Your task to perform on an android device: What's the weather going to be tomorrow? Image 0: 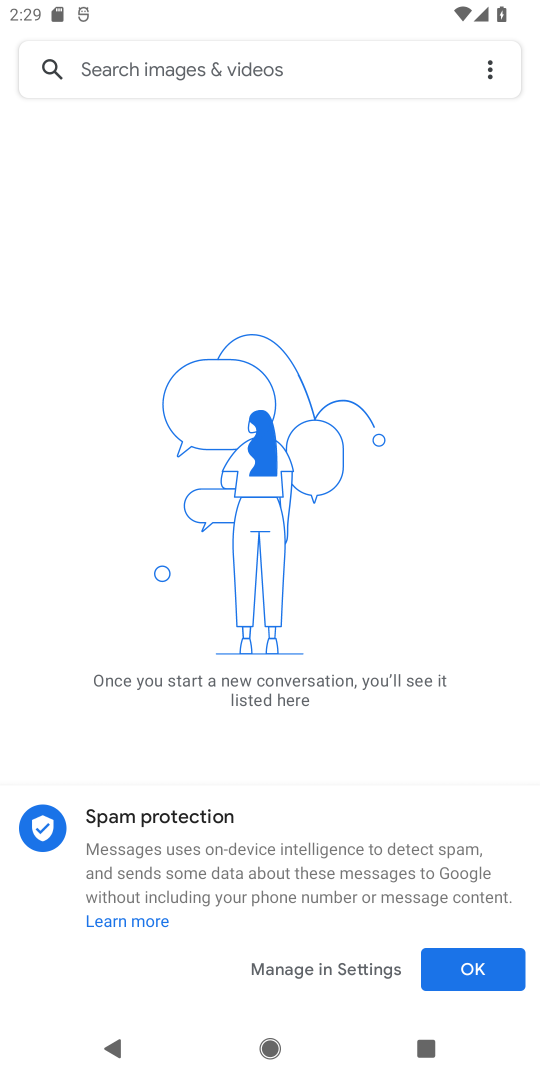
Step 0: press home button
Your task to perform on an android device: What's the weather going to be tomorrow? Image 1: 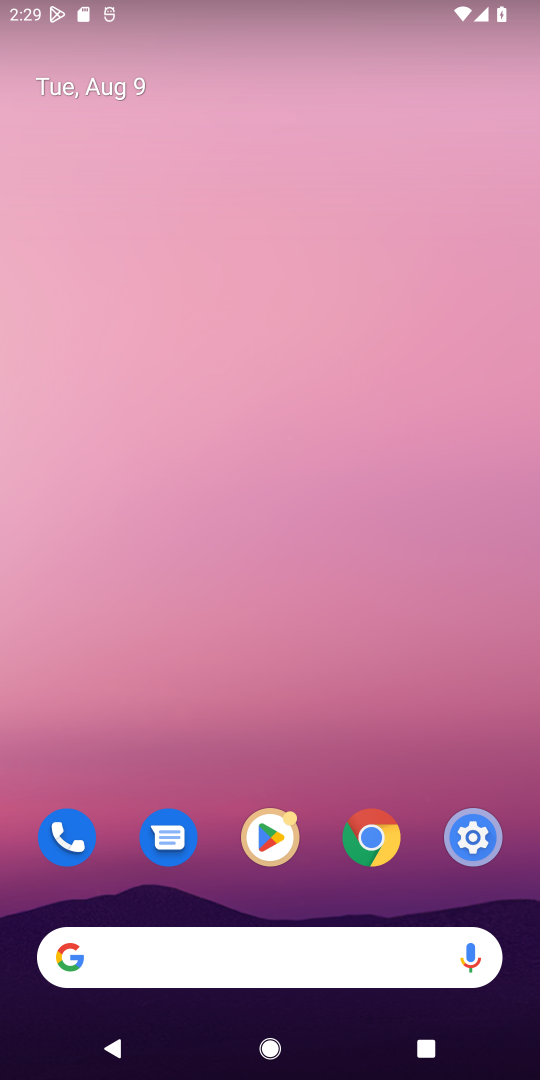
Step 1: drag from (255, 852) to (450, 7)
Your task to perform on an android device: What's the weather going to be tomorrow? Image 2: 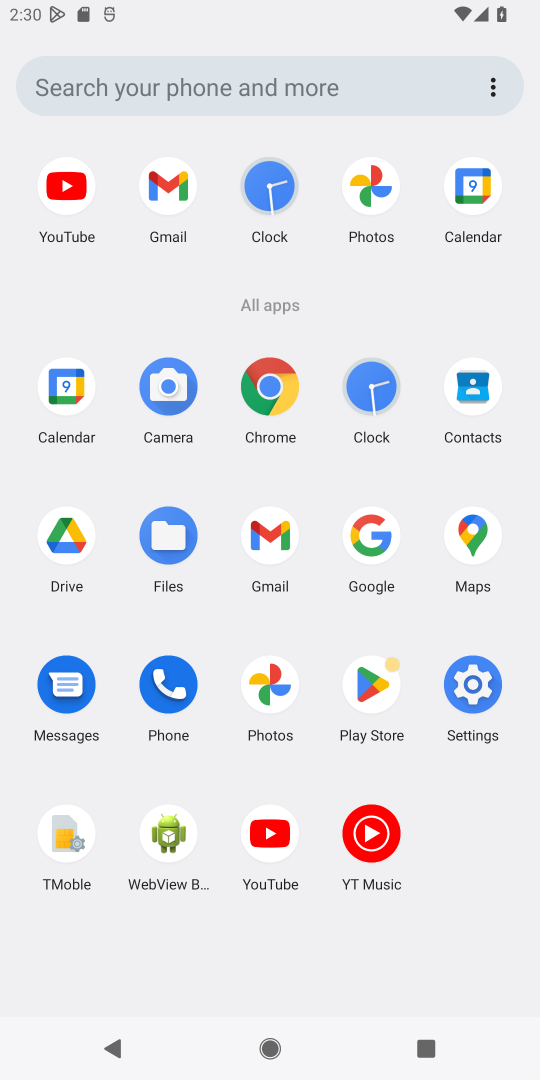
Step 2: click (260, 403)
Your task to perform on an android device: What's the weather going to be tomorrow? Image 3: 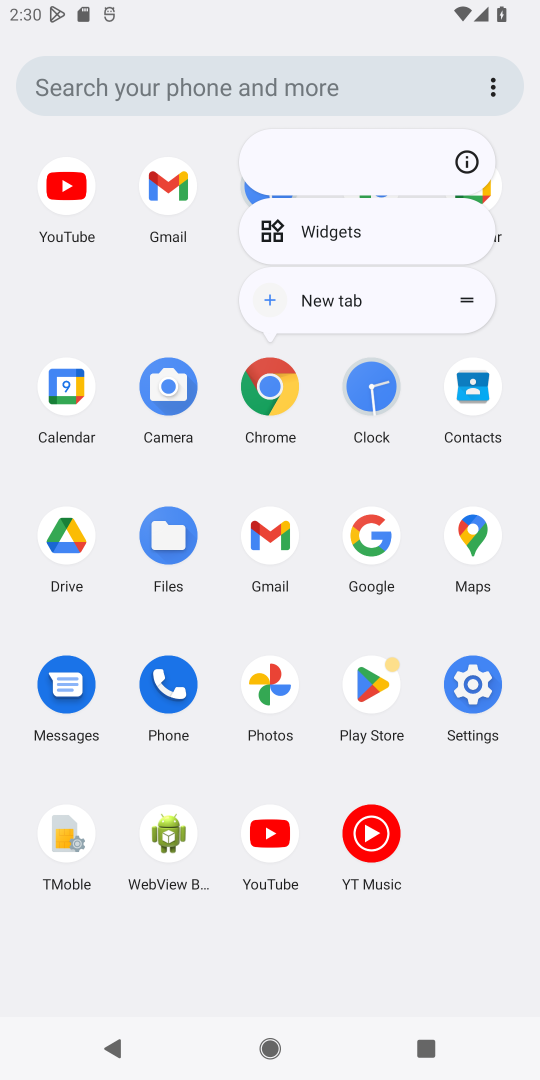
Step 3: click (264, 394)
Your task to perform on an android device: What's the weather going to be tomorrow? Image 4: 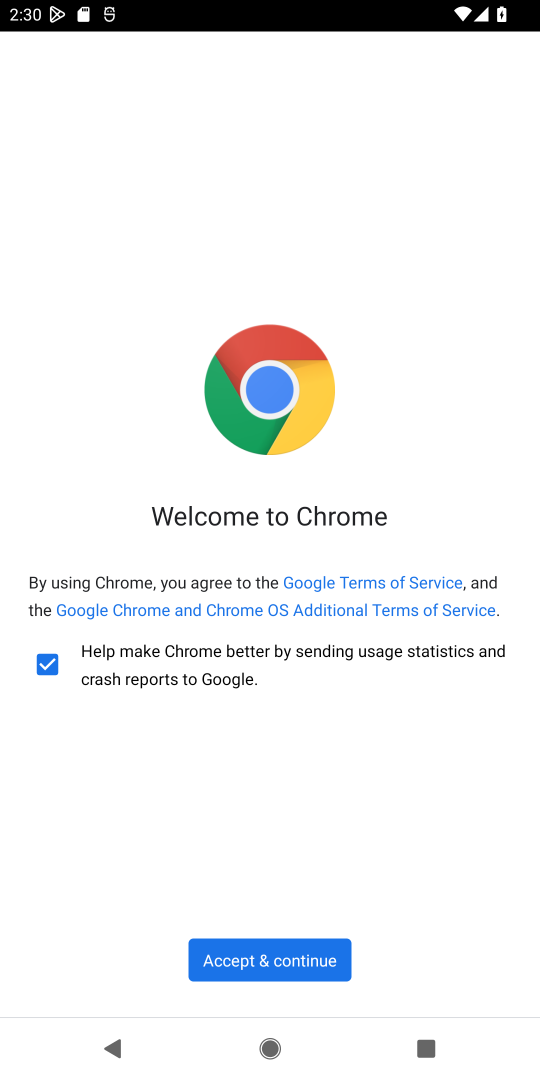
Step 4: click (242, 955)
Your task to perform on an android device: What's the weather going to be tomorrow? Image 5: 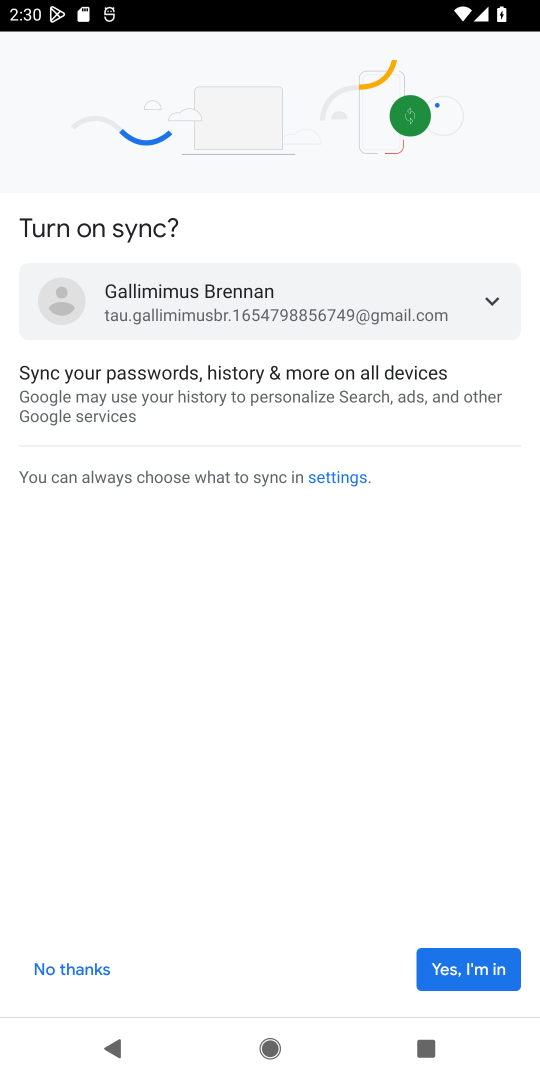
Step 5: click (504, 969)
Your task to perform on an android device: What's the weather going to be tomorrow? Image 6: 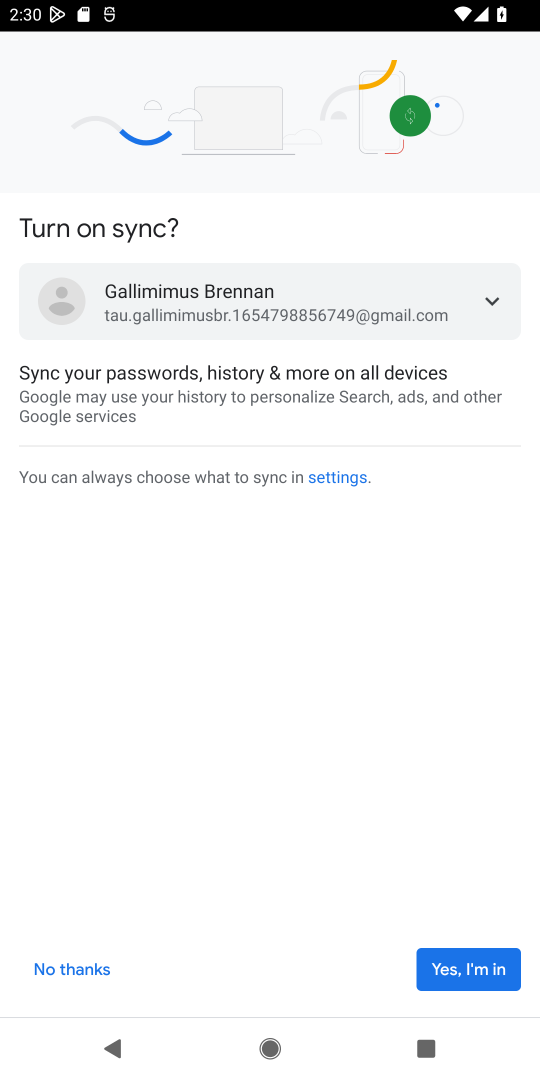
Step 6: click (488, 966)
Your task to perform on an android device: What's the weather going to be tomorrow? Image 7: 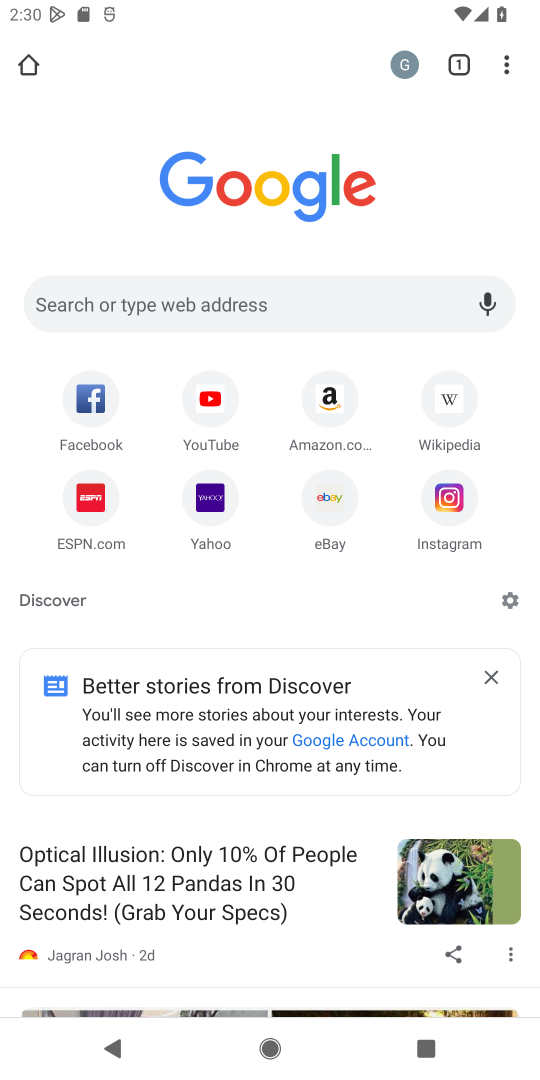
Step 7: click (233, 287)
Your task to perform on an android device: What's the weather going to be tomorrow? Image 8: 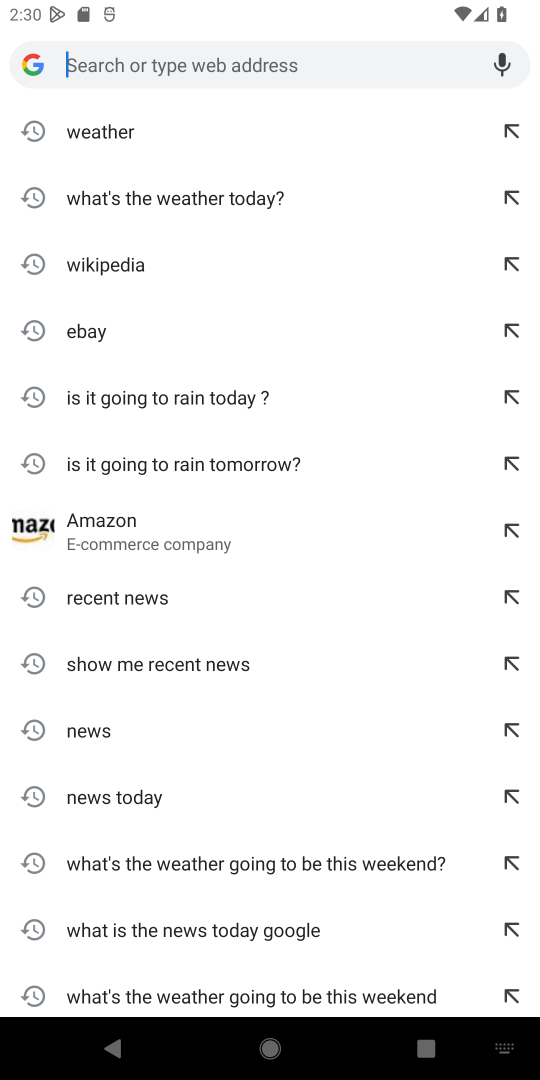
Step 8: type "What's the weather going to be tomorrow? "
Your task to perform on an android device: What's the weather going to be tomorrow? Image 9: 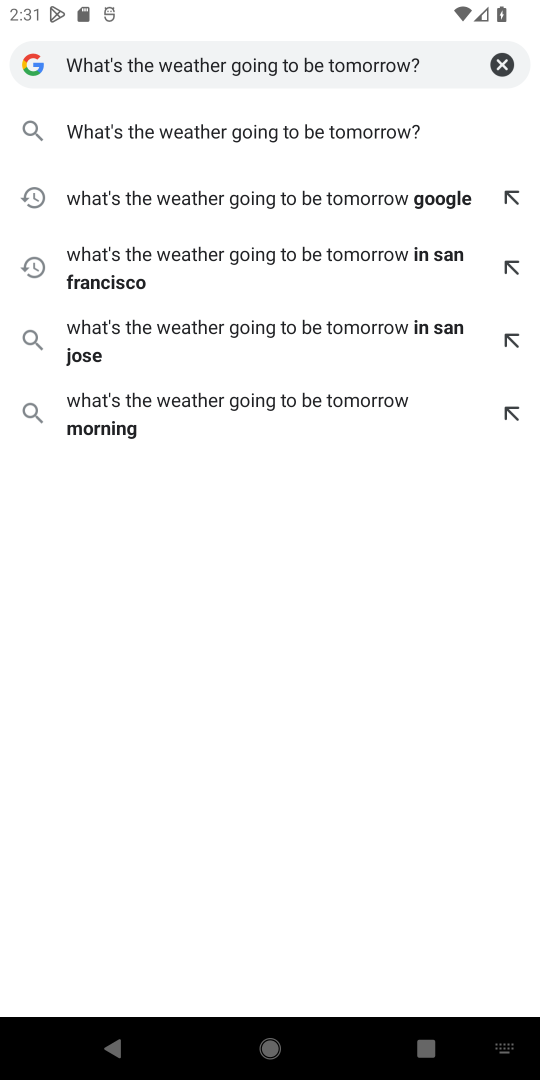
Step 9: click (247, 121)
Your task to perform on an android device: What's the weather going to be tomorrow? Image 10: 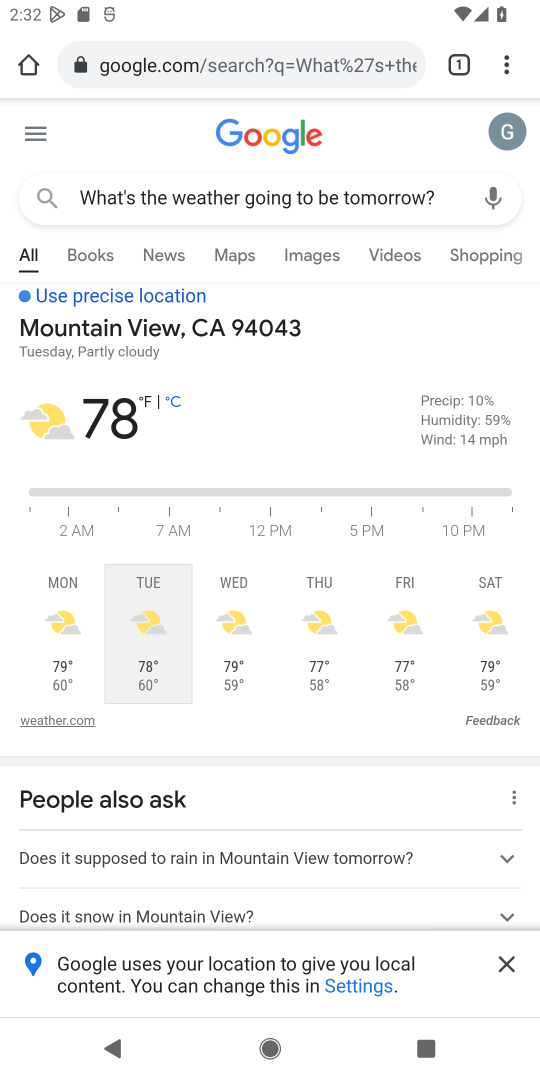
Step 10: task complete